Your task to perform on an android device: Is it going to rain tomorrow? Image 0: 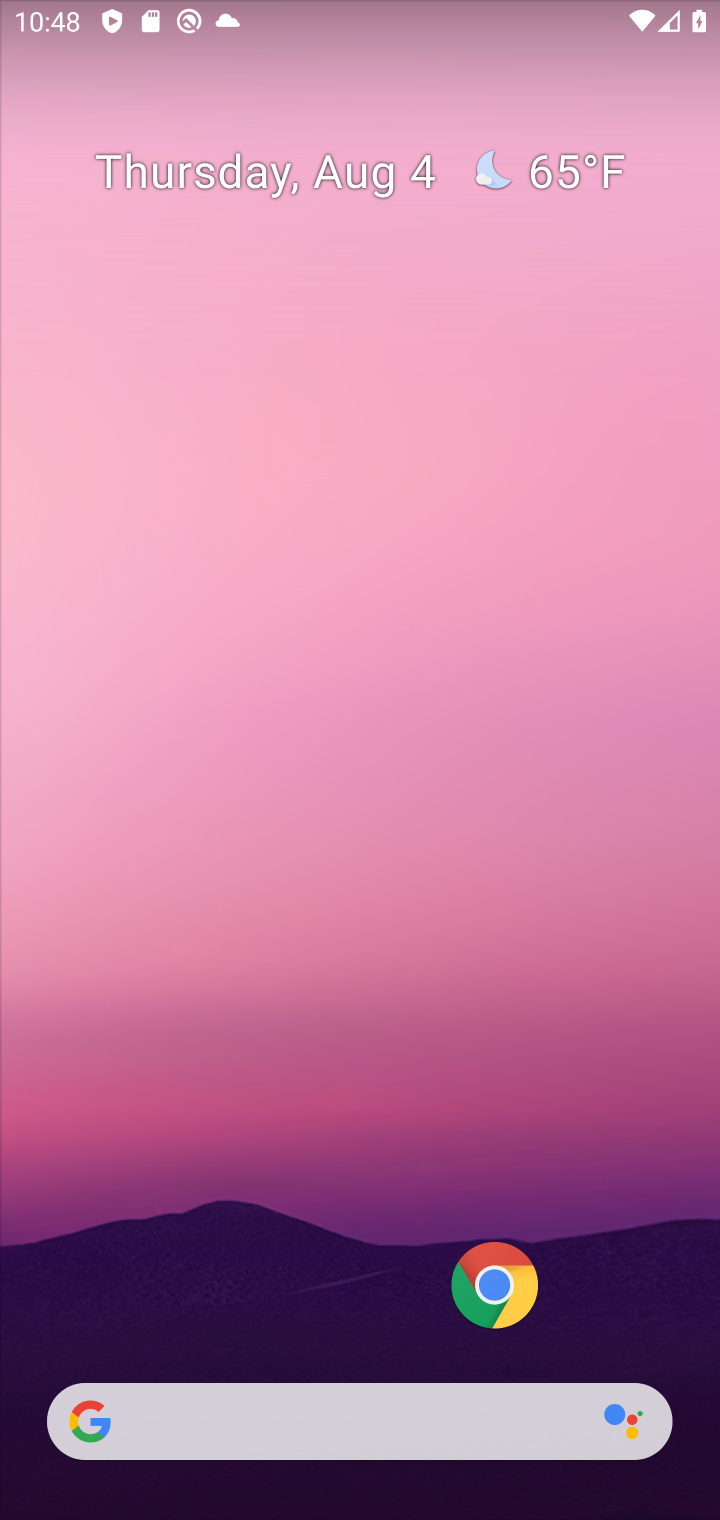
Step 0: drag from (324, 1314) to (517, 27)
Your task to perform on an android device: Is it going to rain tomorrow? Image 1: 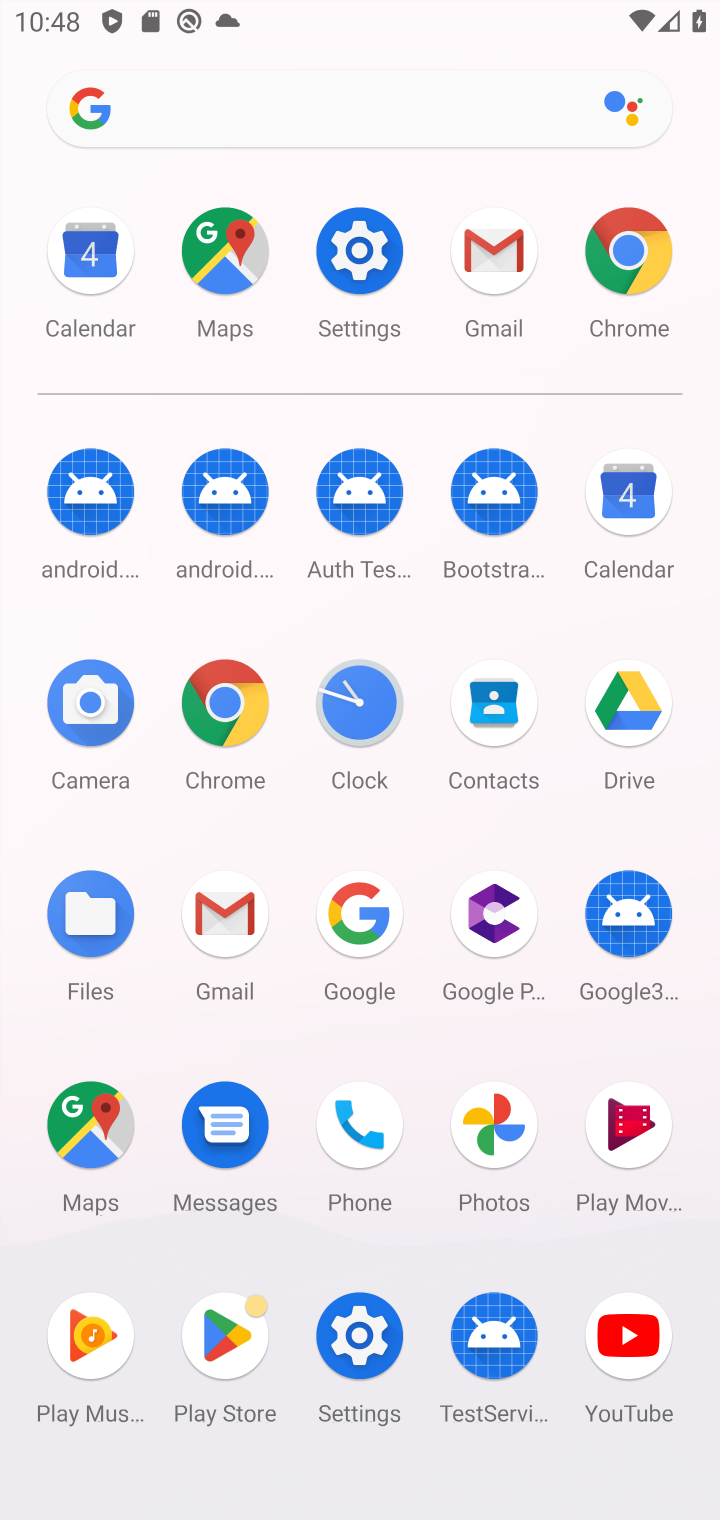
Step 1: click (210, 692)
Your task to perform on an android device: Is it going to rain tomorrow? Image 2: 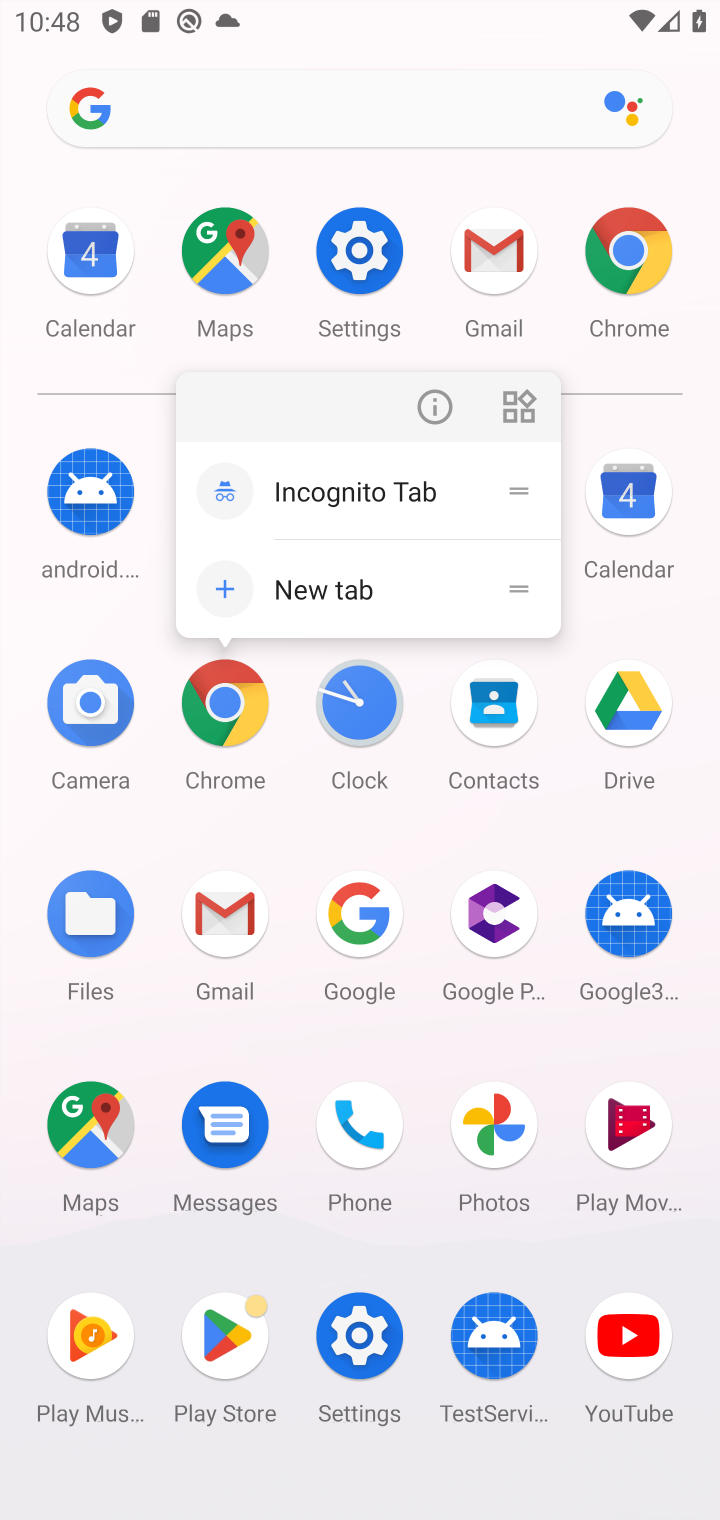
Step 2: click (210, 692)
Your task to perform on an android device: Is it going to rain tomorrow? Image 3: 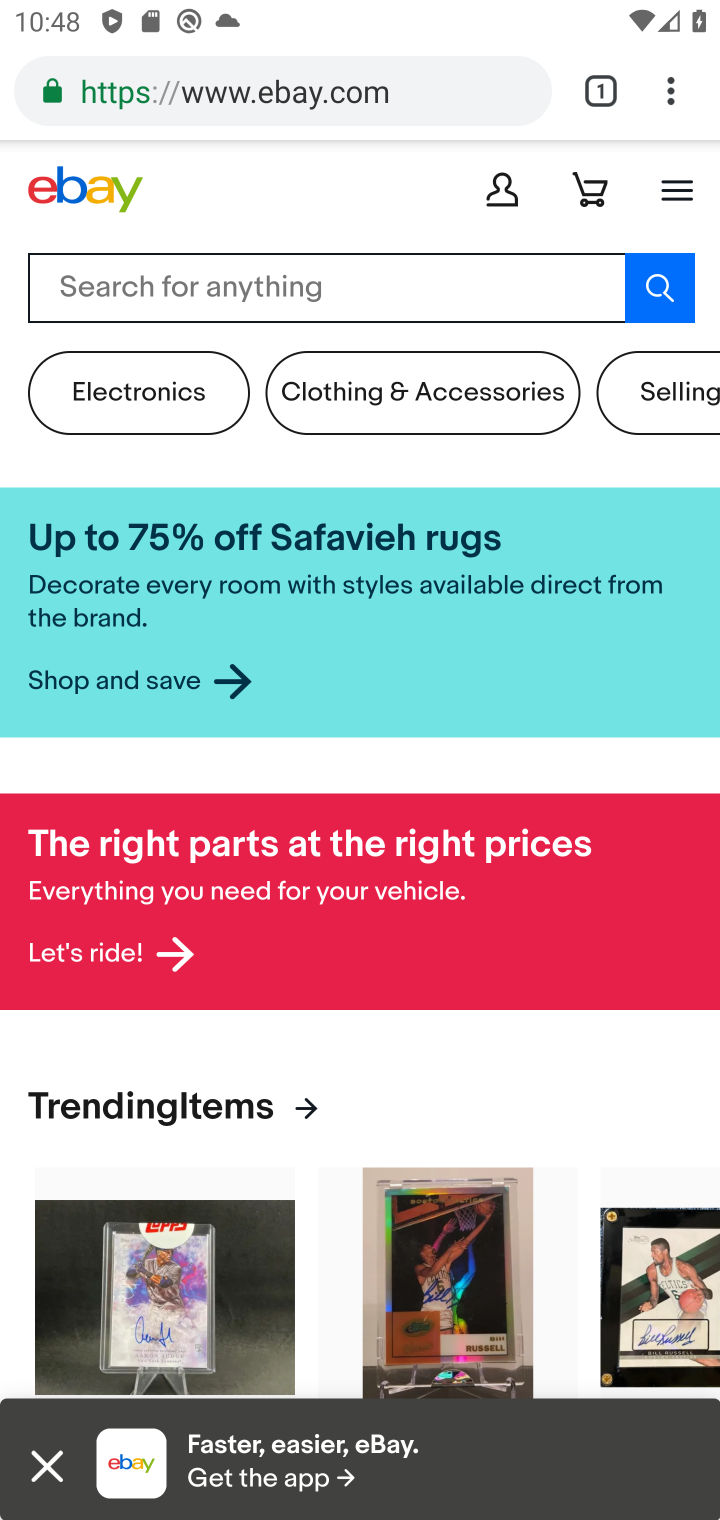
Step 3: click (269, 84)
Your task to perform on an android device: Is it going to rain tomorrow? Image 4: 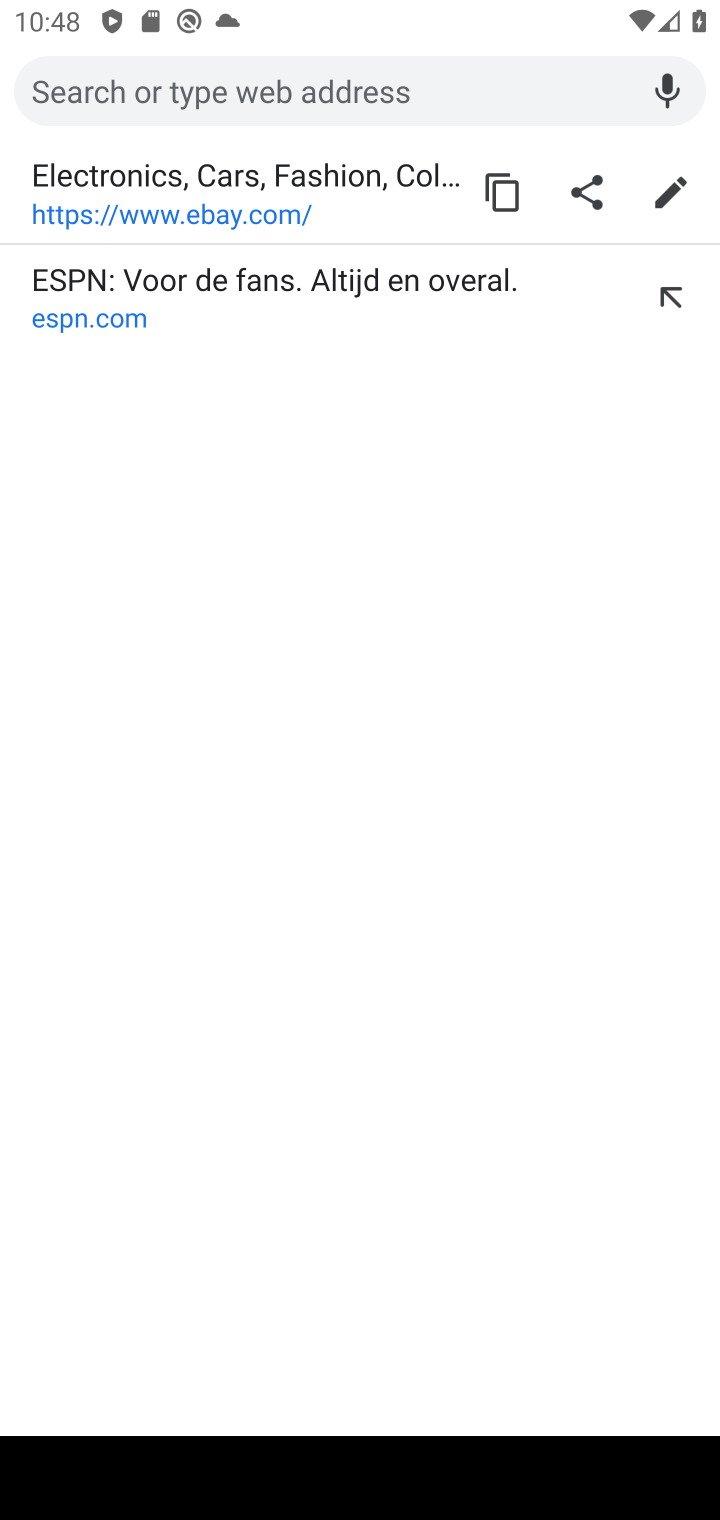
Step 4: type "Is it going to rain tomorrow?"
Your task to perform on an android device: Is it going to rain tomorrow? Image 5: 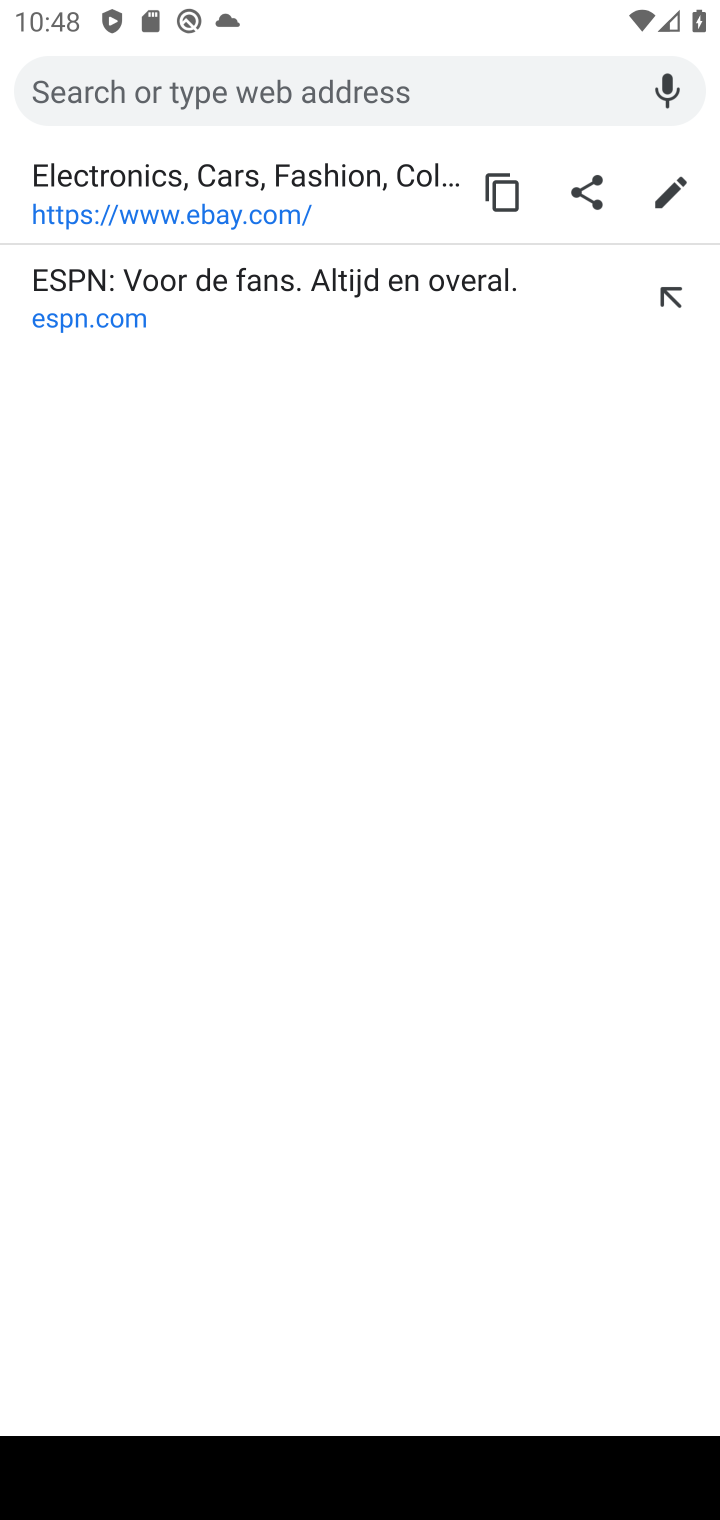
Step 5: click (166, 77)
Your task to perform on an android device: Is it going to rain tomorrow? Image 6: 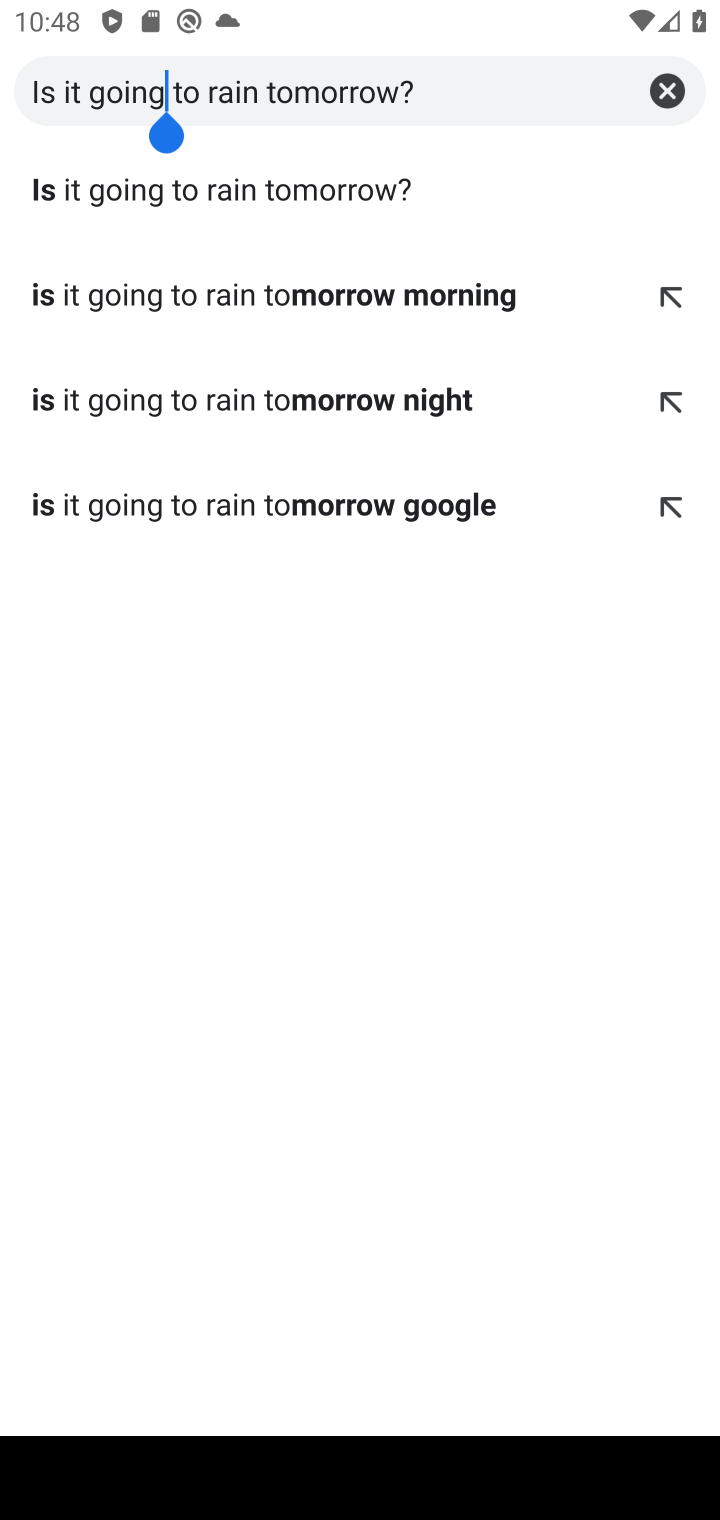
Step 6: click (193, 180)
Your task to perform on an android device: Is it going to rain tomorrow? Image 7: 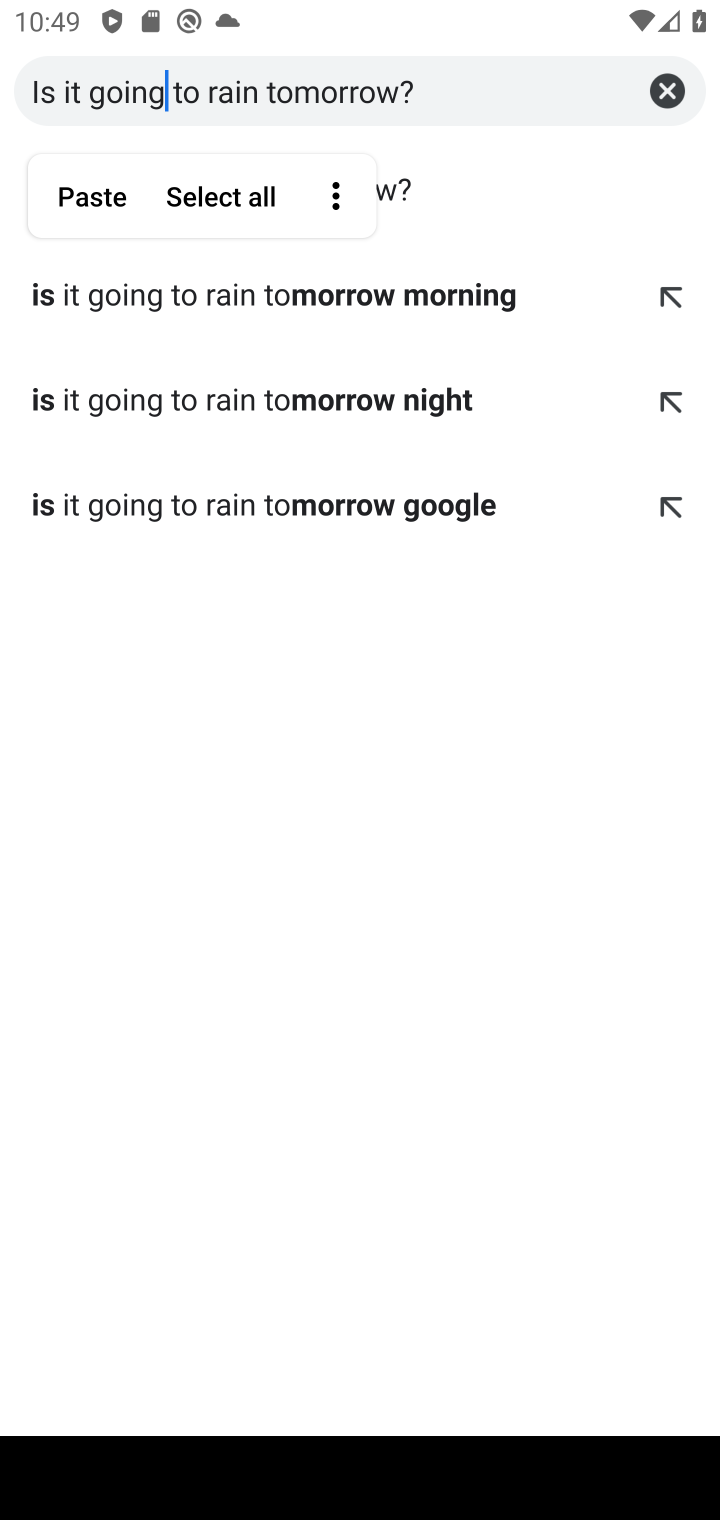
Step 7: click (340, 292)
Your task to perform on an android device: Is it going to rain tomorrow? Image 8: 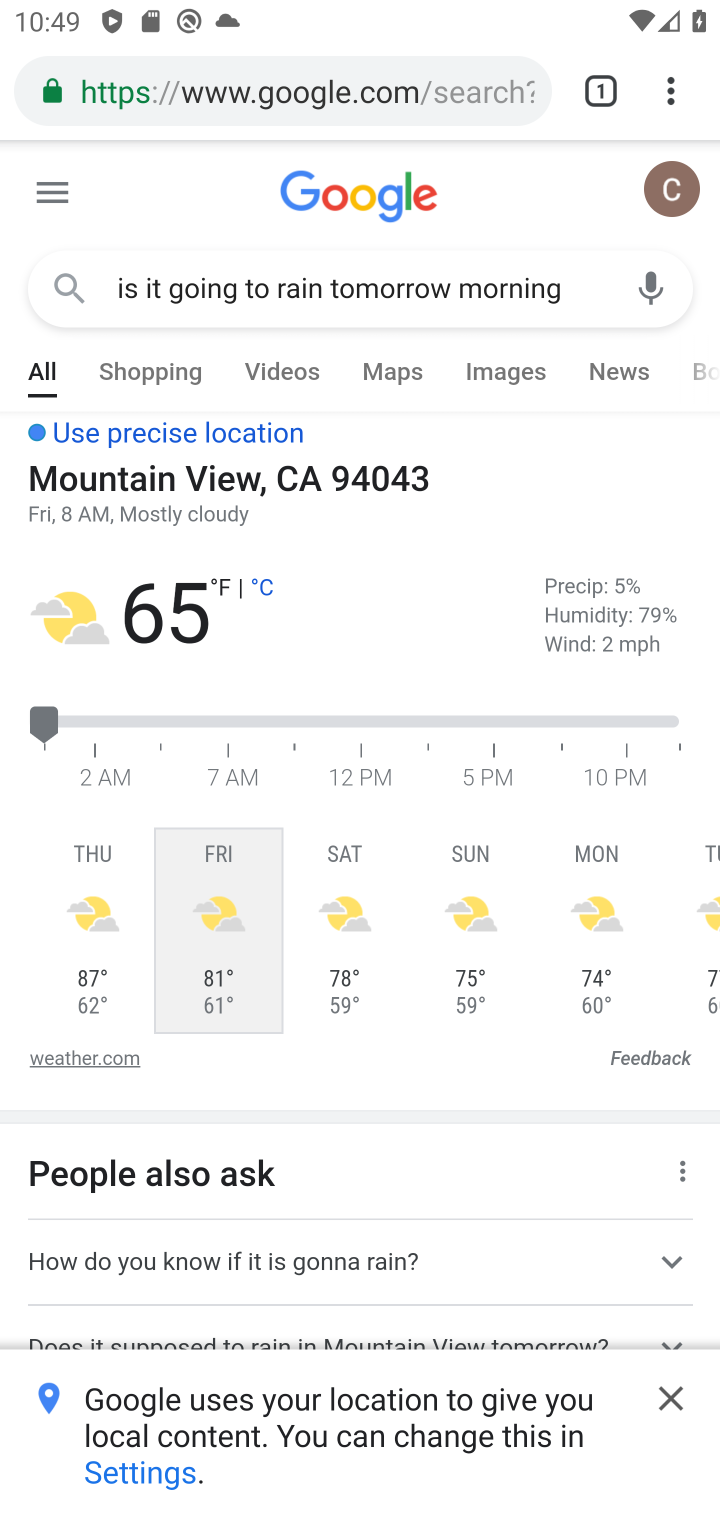
Step 8: task complete